Your task to perform on an android device: Go to CNN.com Image 0: 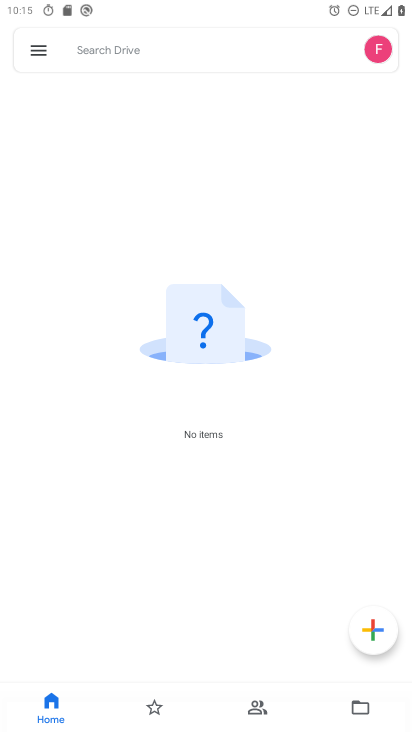
Step 0: press home button
Your task to perform on an android device: Go to CNN.com Image 1: 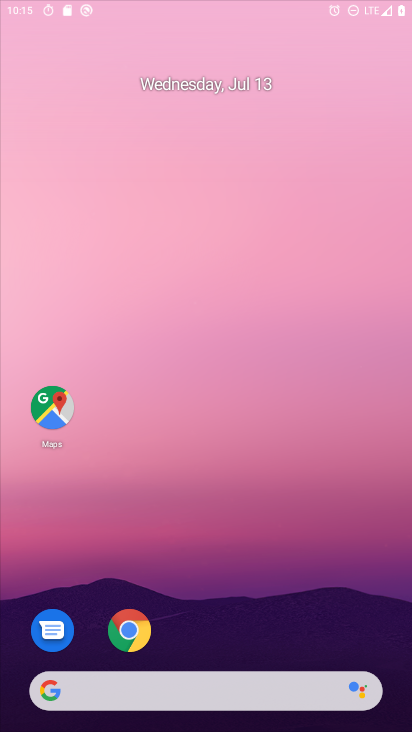
Step 1: drag from (364, 421) to (303, 101)
Your task to perform on an android device: Go to CNN.com Image 2: 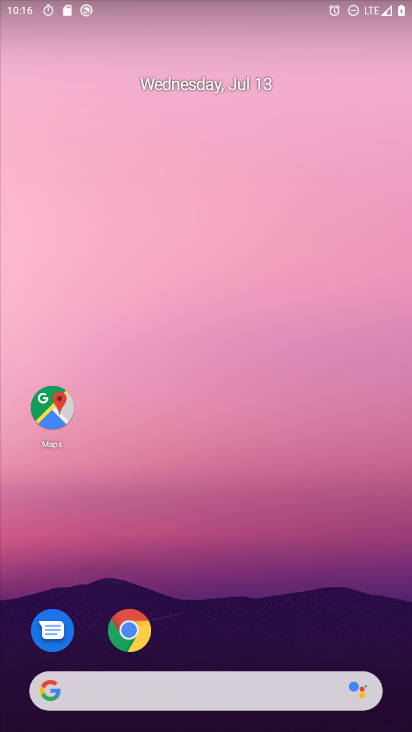
Step 2: drag from (362, 641) to (0, 227)
Your task to perform on an android device: Go to CNN.com Image 3: 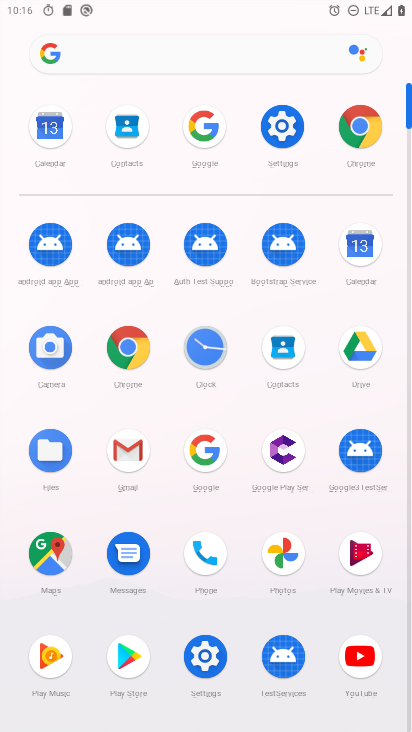
Step 3: click (207, 471)
Your task to perform on an android device: Go to CNN.com Image 4: 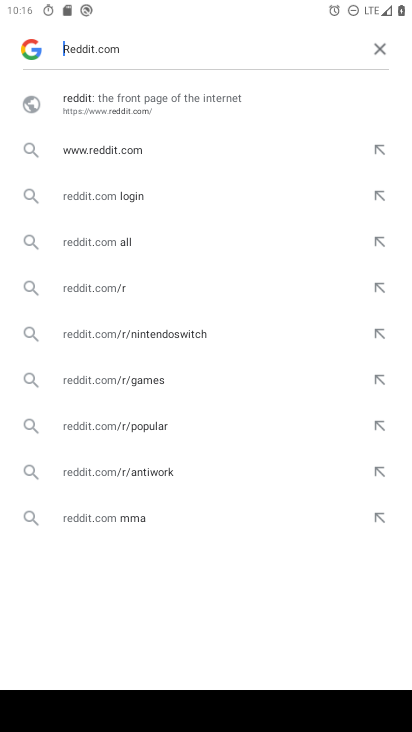
Step 4: click (373, 49)
Your task to perform on an android device: Go to CNN.com Image 5: 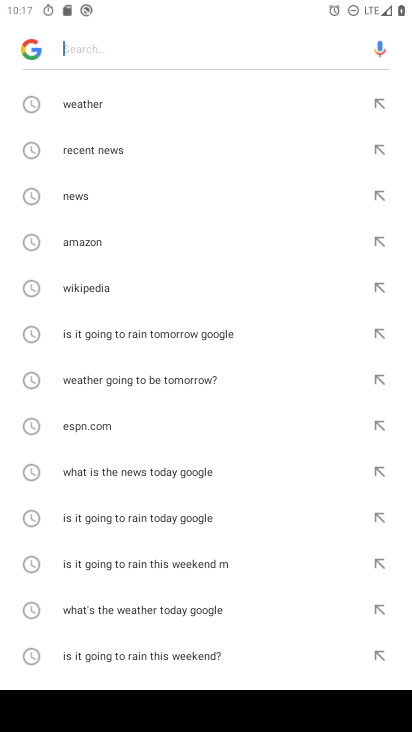
Step 5: type "CNN.com"
Your task to perform on an android device: Go to CNN.com Image 6: 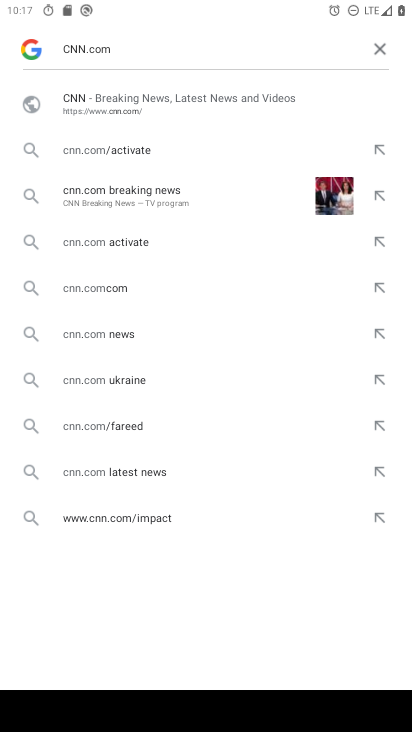
Step 6: click (132, 95)
Your task to perform on an android device: Go to CNN.com Image 7: 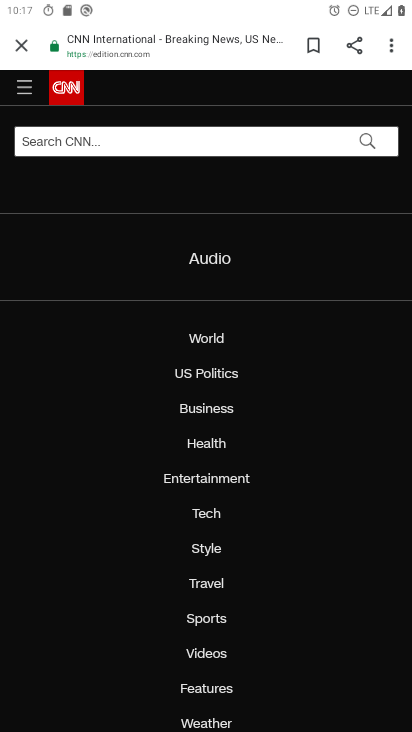
Step 7: task complete